Your task to perform on an android device: Go to location settings Image 0: 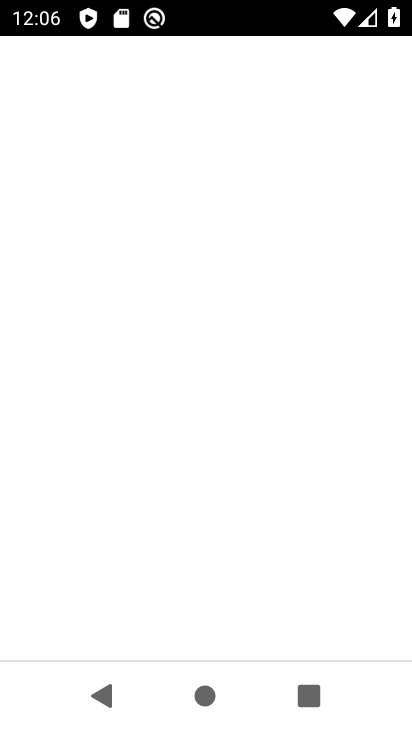
Step 0: press home button
Your task to perform on an android device: Go to location settings Image 1: 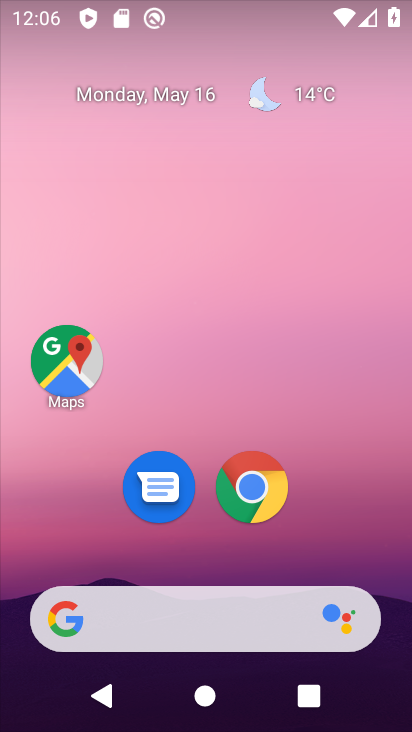
Step 1: drag from (178, 615) to (331, 150)
Your task to perform on an android device: Go to location settings Image 2: 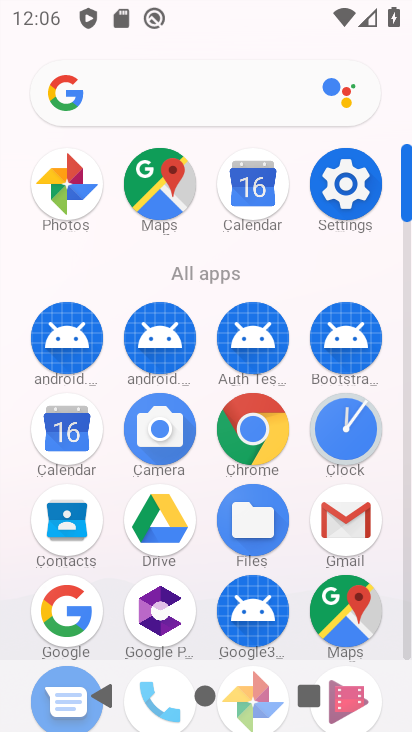
Step 2: click (347, 201)
Your task to perform on an android device: Go to location settings Image 3: 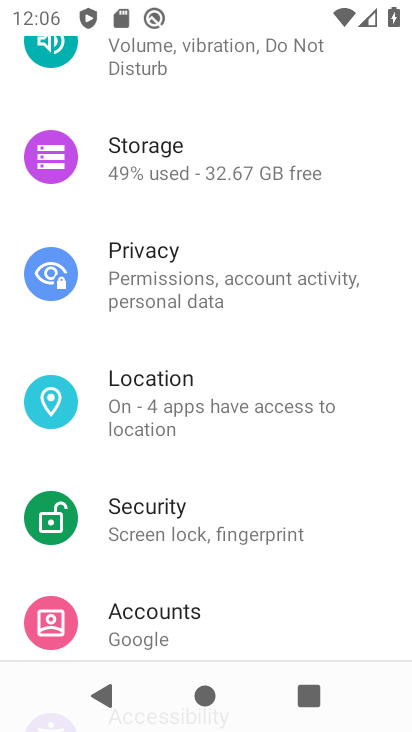
Step 3: click (166, 405)
Your task to perform on an android device: Go to location settings Image 4: 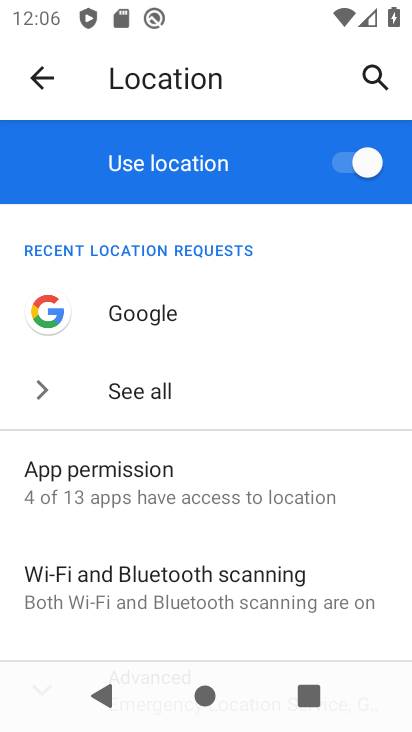
Step 4: task complete